Your task to perform on an android device: Search for "jbl charge 4" on ebay.com, select the first entry, add it to the cart, then select checkout. Image 0: 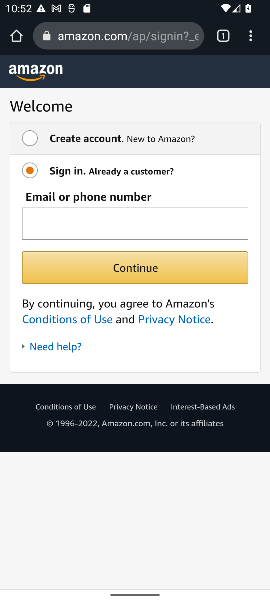
Step 0: press home button
Your task to perform on an android device: Search for "jbl charge 4" on ebay.com, select the first entry, add it to the cart, then select checkout. Image 1: 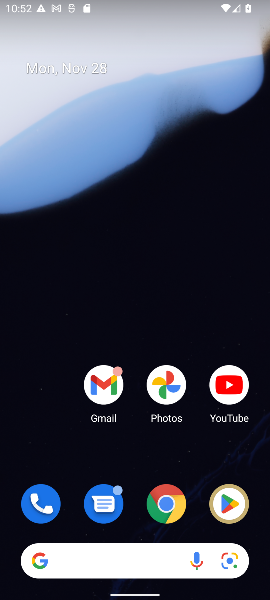
Step 1: click (162, 501)
Your task to perform on an android device: Search for "jbl charge 4" on ebay.com, select the first entry, add it to the cart, then select checkout. Image 2: 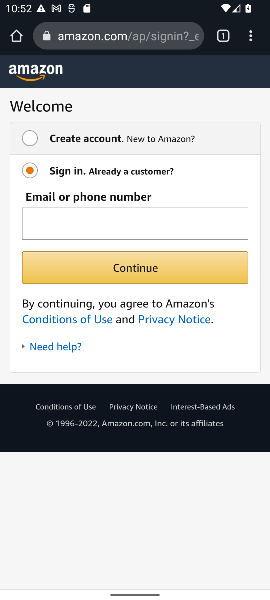
Step 2: click (109, 41)
Your task to perform on an android device: Search for "jbl charge 4" on ebay.com, select the first entry, add it to the cart, then select checkout. Image 3: 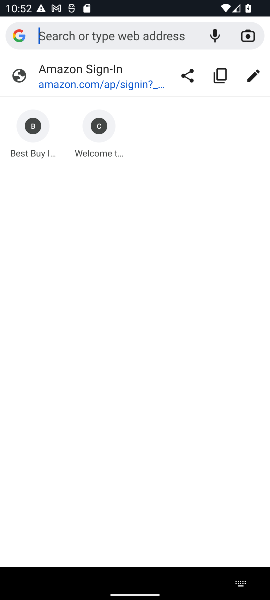
Step 3: type "ebay.com"
Your task to perform on an android device: Search for "jbl charge 4" on ebay.com, select the first entry, add it to the cart, then select checkout. Image 4: 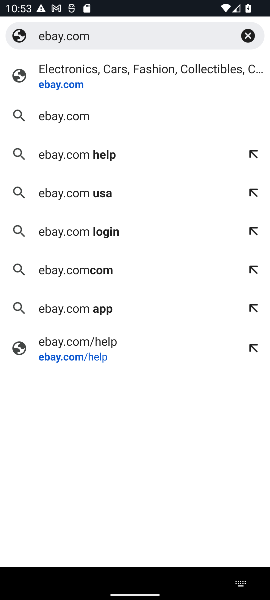
Step 4: click (65, 79)
Your task to perform on an android device: Search for "jbl charge 4" on ebay.com, select the first entry, add it to the cart, then select checkout. Image 5: 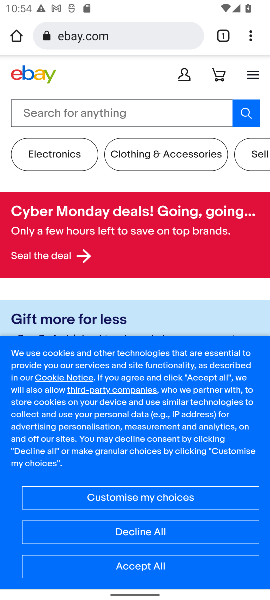
Step 5: click (56, 115)
Your task to perform on an android device: Search for "jbl charge 4" on ebay.com, select the first entry, add it to the cart, then select checkout. Image 6: 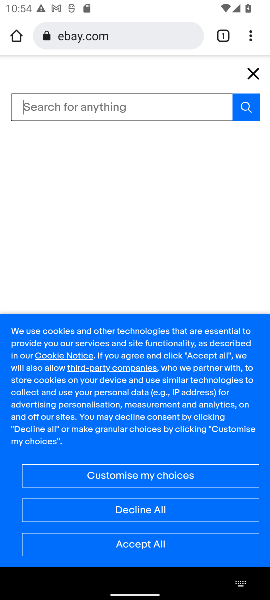
Step 6: type "jbl charge 4"
Your task to perform on an android device: Search for "jbl charge 4" on ebay.com, select the first entry, add it to the cart, then select checkout. Image 7: 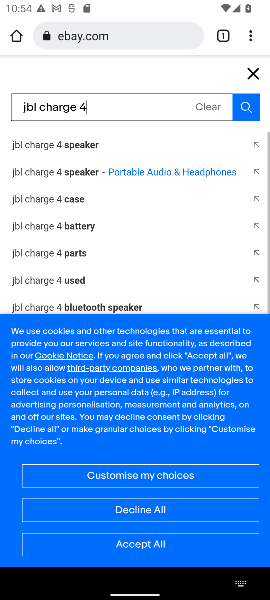
Step 7: click (258, 106)
Your task to perform on an android device: Search for "jbl charge 4" on ebay.com, select the first entry, add it to the cart, then select checkout. Image 8: 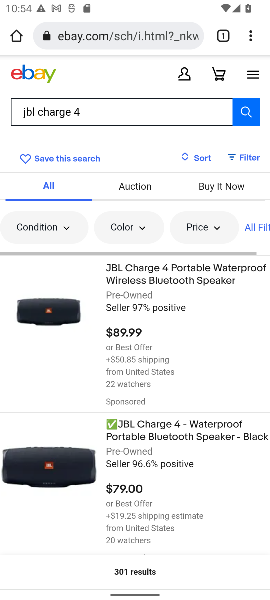
Step 8: click (125, 293)
Your task to perform on an android device: Search for "jbl charge 4" on ebay.com, select the first entry, add it to the cart, then select checkout. Image 9: 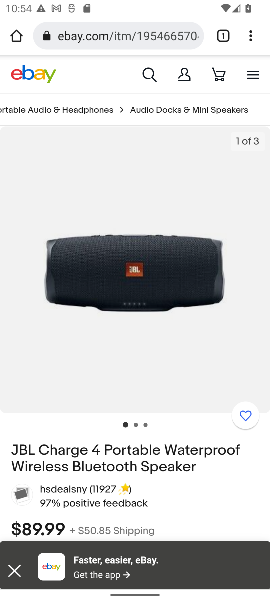
Step 9: drag from (177, 392) to (186, 284)
Your task to perform on an android device: Search for "jbl charge 4" on ebay.com, select the first entry, add it to the cart, then select checkout. Image 10: 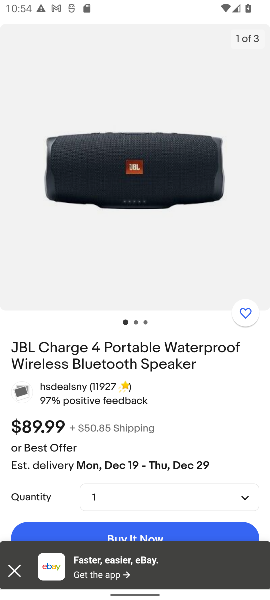
Step 10: drag from (194, 402) to (194, 354)
Your task to perform on an android device: Search for "jbl charge 4" on ebay.com, select the first entry, add it to the cart, then select checkout. Image 11: 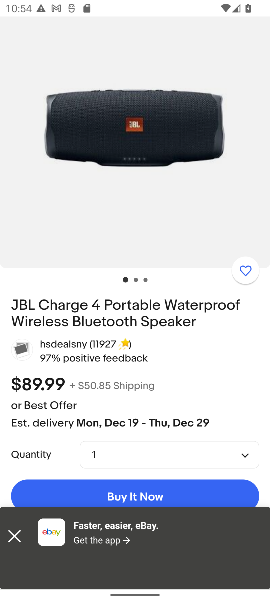
Step 11: drag from (203, 414) to (201, 342)
Your task to perform on an android device: Search for "jbl charge 4" on ebay.com, select the first entry, add it to the cart, then select checkout. Image 12: 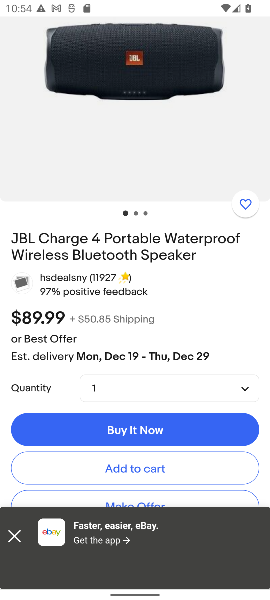
Step 12: click (131, 470)
Your task to perform on an android device: Search for "jbl charge 4" on ebay.com, select the first entry, add it to the cart, then select checkout. Image 13: 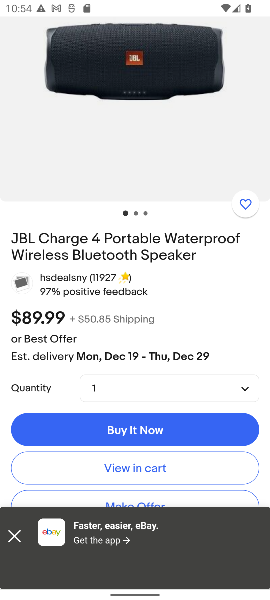
Step 13: click (132, 469)
Your task to perform on an android device: Search for "jbl charge 4" on ebay.com, select the first entry, add it to the cart, then select checkout. Image 14: 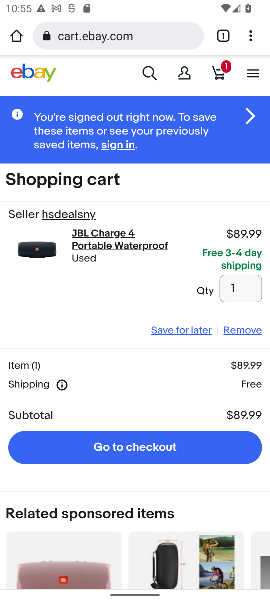
Step 14: click (133, 458)
Your task to perform on an android device: Search for "jbl charge 4" on ebay.com, select the first entry, add it to the cart, then select checkout. Image 15: 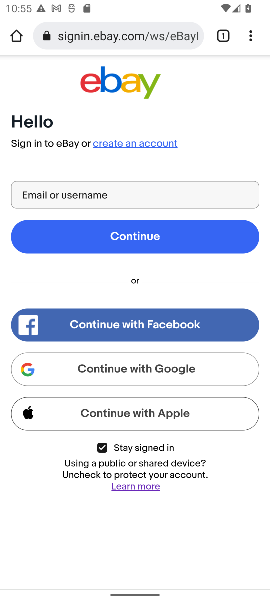
Step 15: task complete